Your task to perform on an android device: What's on my calendar today? Image 0: 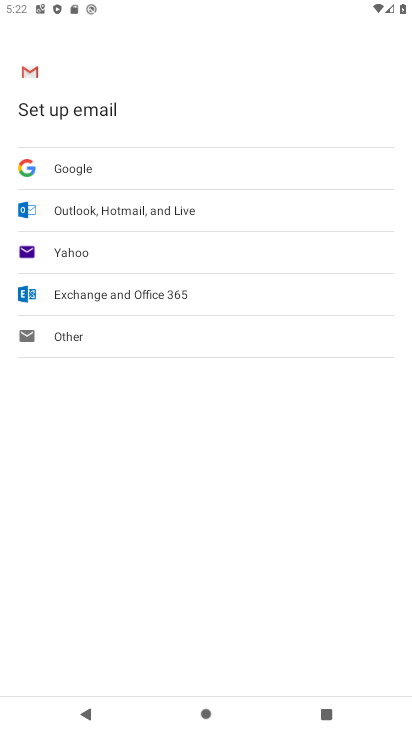
Step 0: press home button
Your task to perform on an android device: What's on my calendar today? Image 1: 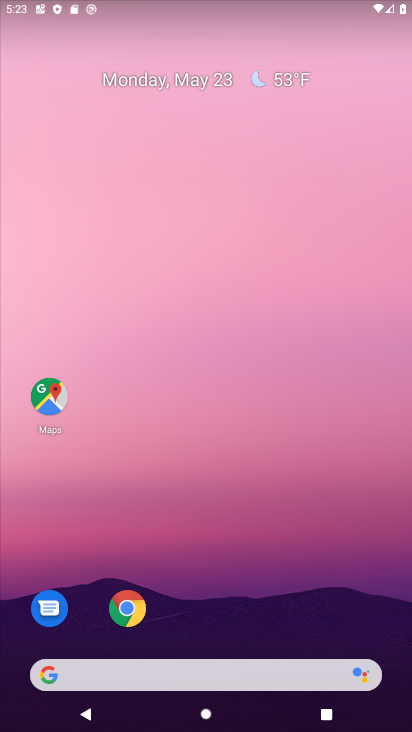
Step 1: drag from (218, 610) to (210, 296)
Your task to perform on an android device: What's on my calendar today? Image 2: 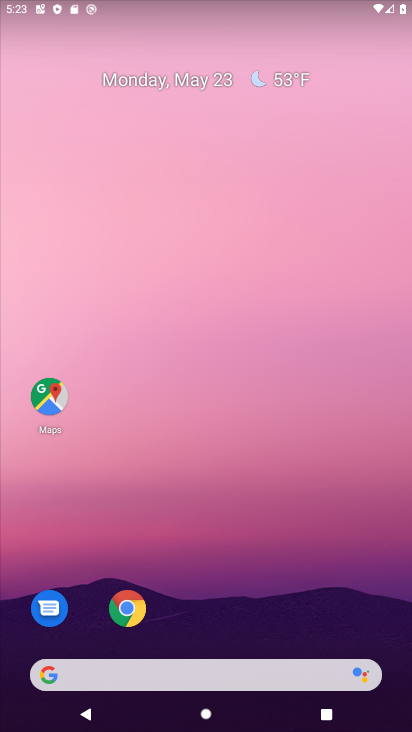
Step 2: drag from (237, 599) to (330, 92)
Your task to perform on an android device: What's on my calendar today? Image 3: 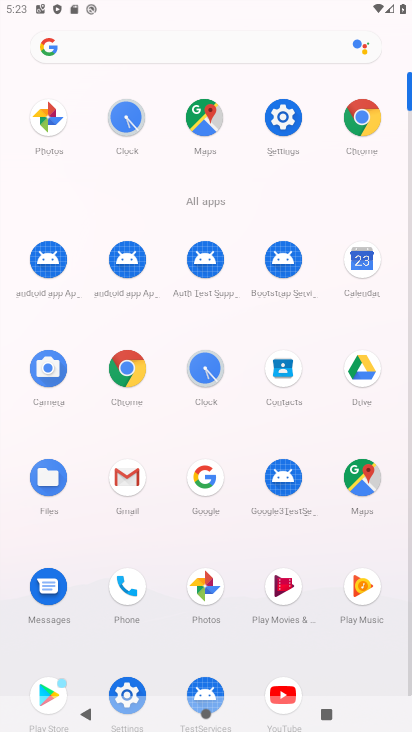
Step 3: click (373, 269)
Your task to perform on an android device: What's on my calendar today? Image 4: 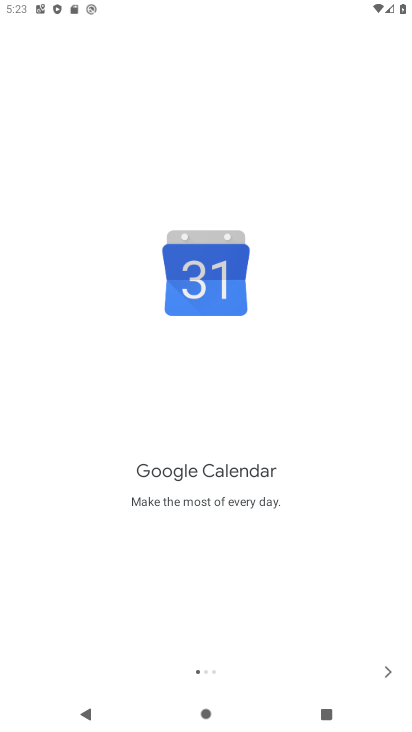
Step 4: click (379, 670)
Your task to perform on an android device: What's on my calendar today? Image 5: 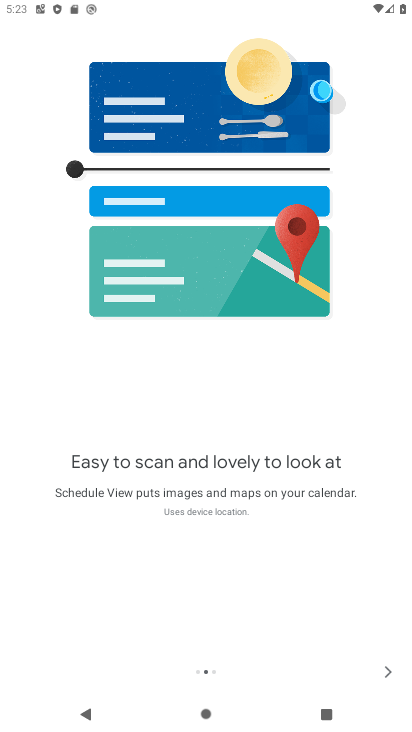
Step 5: click (391, 670)
Your task to perform on an android device: What's on my calendar today? Image 6: 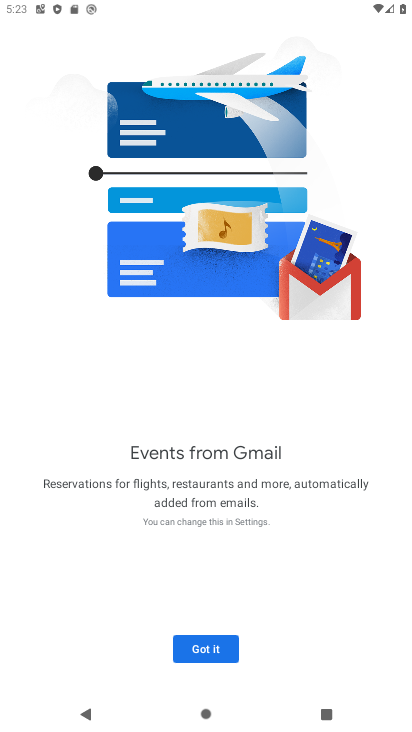
Step 6: click (208, 648)
Your task to perform on an android device: What's on my calendar today? Image 7: 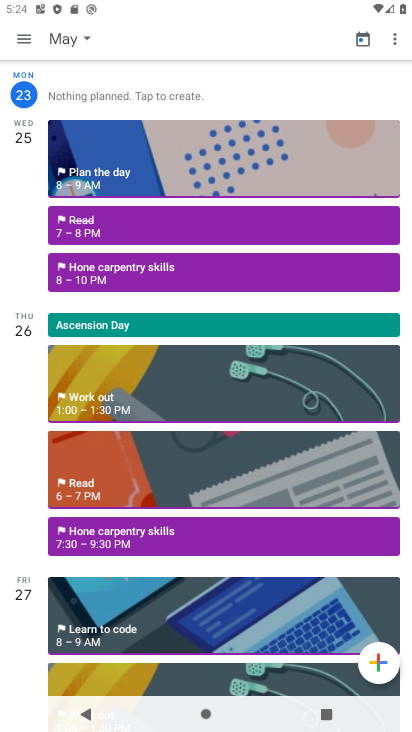
Step 7: click (85, 32)
Your task to perform on an android device: What's on my calendar today? Image 8: 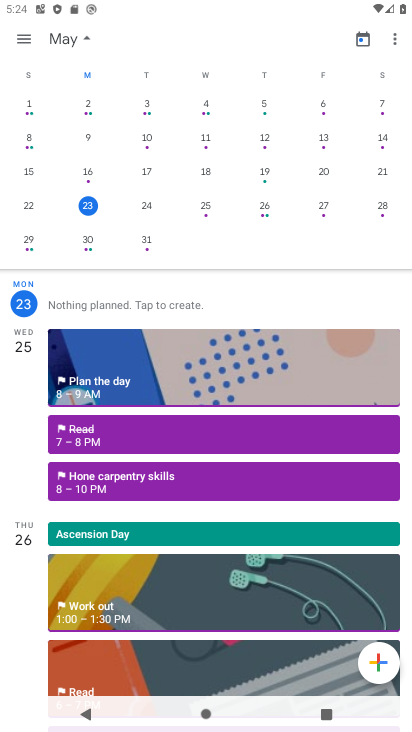
Step 8: click (87, 207)
Your task to perform on an android device: What's on my calendar today? Image 9: 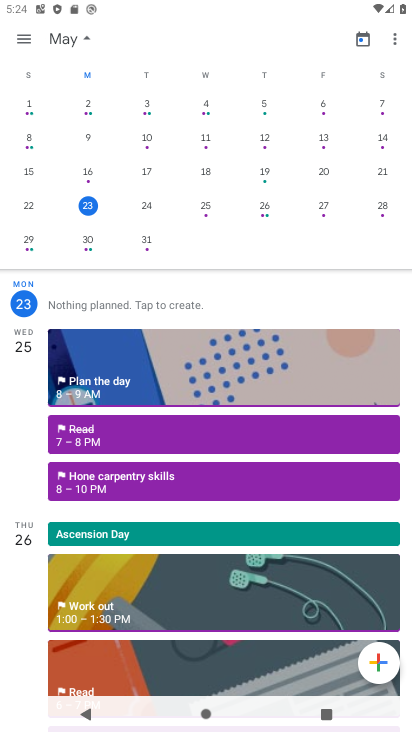
Step 9: click (80, 43)
Your task to perform on an android device: What's on my calendar today? Image 10: 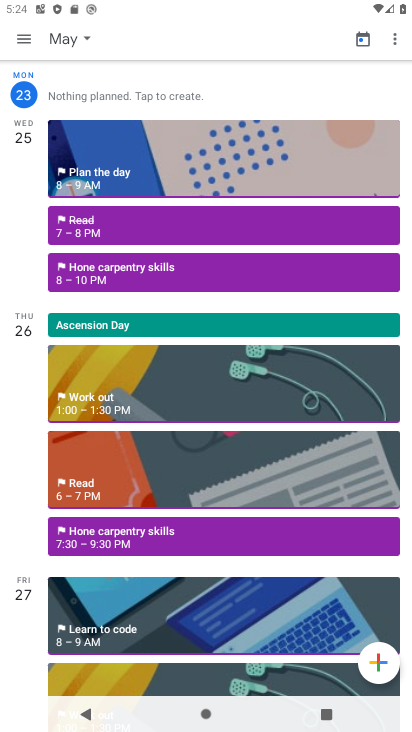
Step 10: click (92, 97)
Your task to perform on an android device: What's on my calendar today? Image 11: 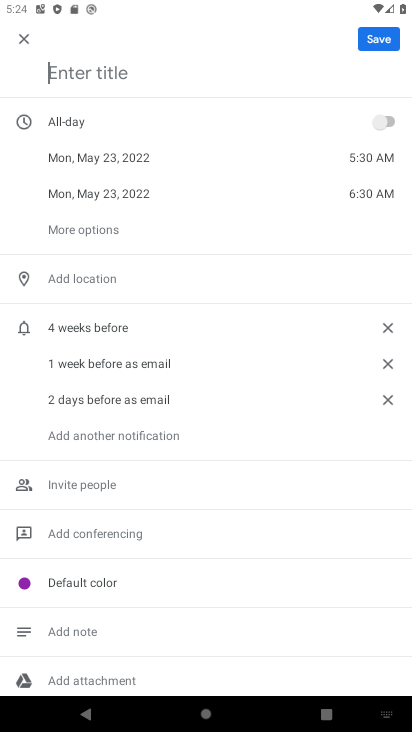
Step 11: click (387, 44)
Your task to perform on an android device: What's on my calendar today? Image 12: 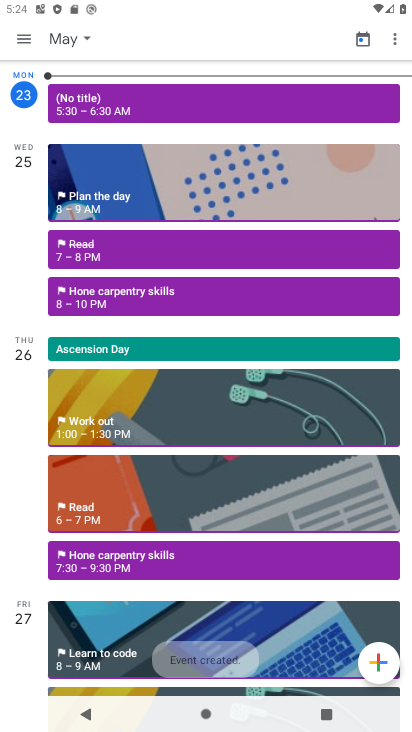
Step 12: task complete